Your task to perform on an android device: turn on notifications settings in the gmail app Image 0: 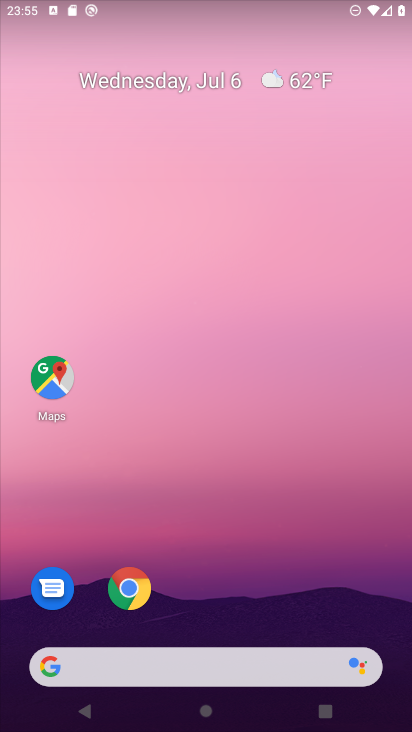
Step 0: drag from (365, 613) to (359, 71)
Your task to perform on an android device: turn on notifications settings in the gmail app Image 1: 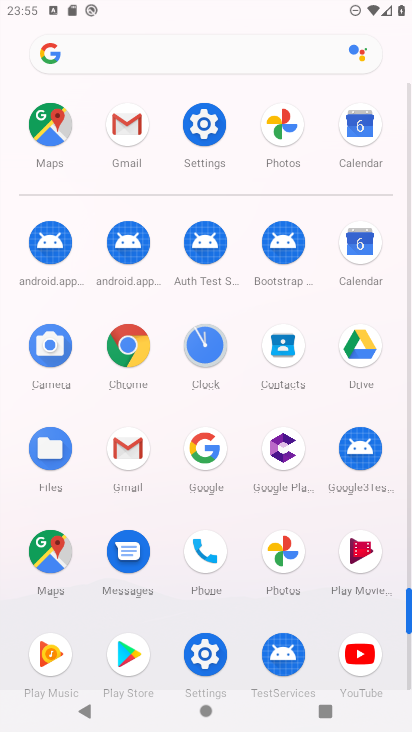
Step 1: click (125, 446)
Your task to perform on an android device: turn on notifications settings in the gmail app Image 2: 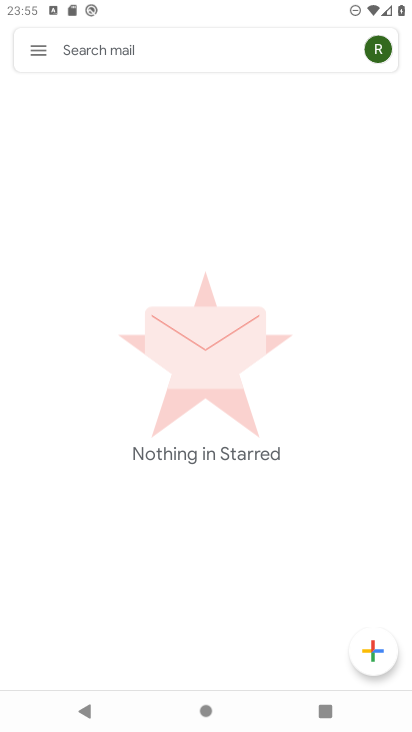
Step 2: click (37, 54)
Your task to perform on an android device: turn on notifications settings in the gmail app Image 3: 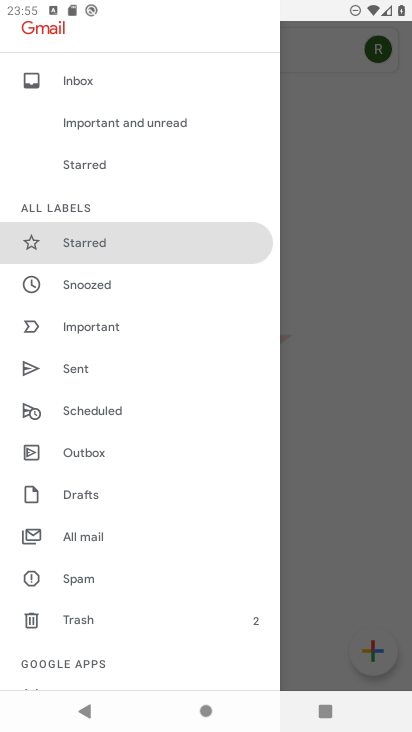
Step 3: drag from (178, 616) to (188, 202)
Your task to perform on an android device: turn on notifications settings in the gmail app Image 4: 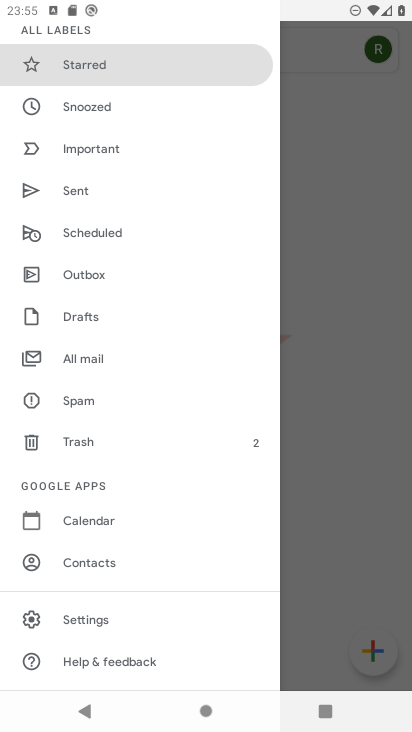
Step 4: click (82, 623)
Your task to perform on an android device: turn on notifications settings in the gmail app Image 5: 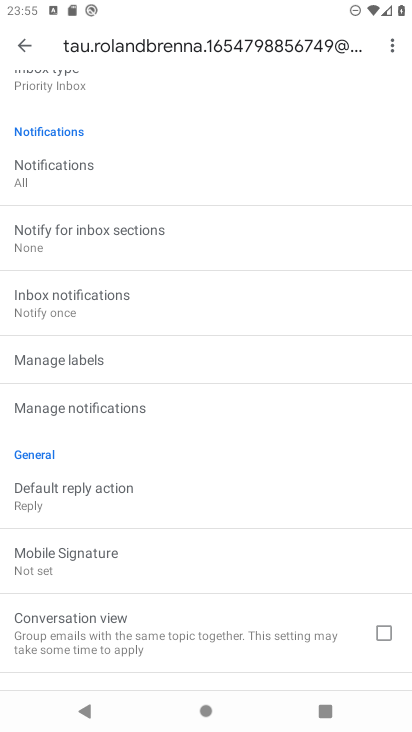
Step 5: click (73, 405)
Your task to perform on an android device: turn on notifications settings in the gmail app Image 6: 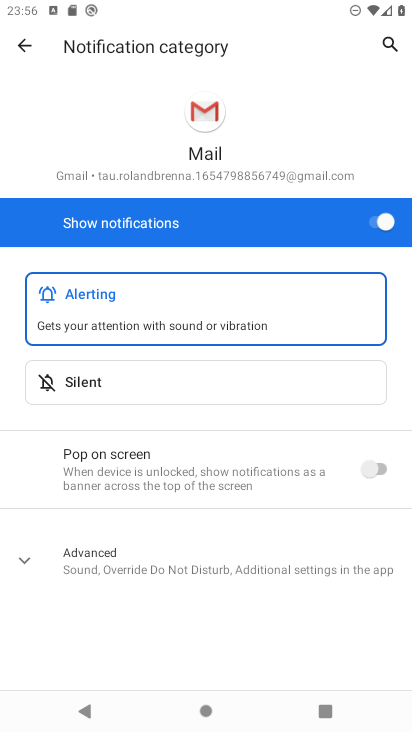
Step 6: click (19, 558)
Your task to perform on an android device: turn on notifications settings in the gmail app Image 7: 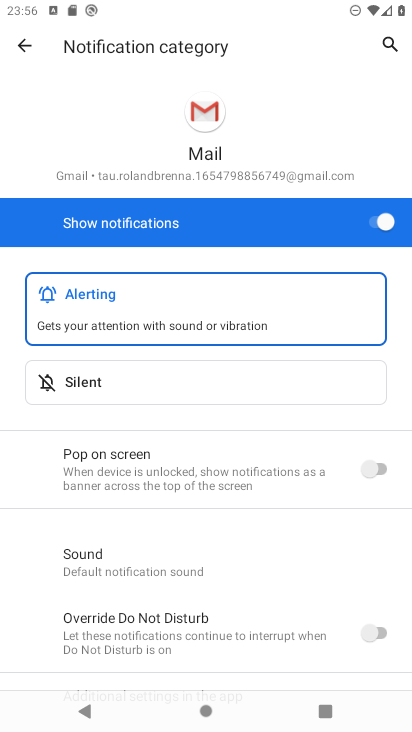
Step 7: task complete